Your task to perform on an android device: all mails in gmail Image 0: 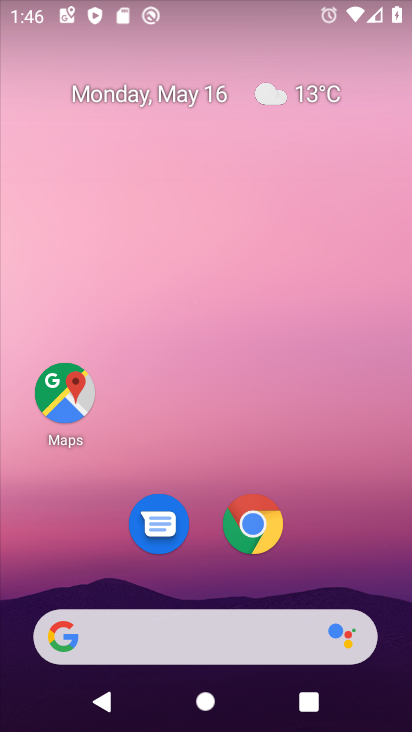
Step 0: drag from (335, 512) to (328, 92)
Your task to perform on an android device: all mails in gmail Image 1: 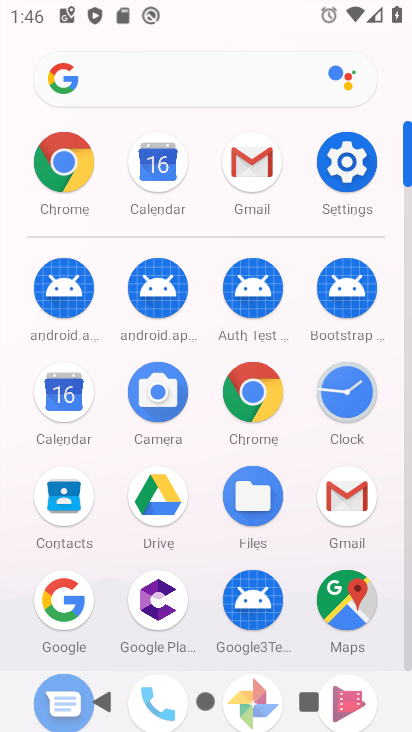
Step 1: click (264, 155)
Your task to perform on an android device: all mails in gmail Image 2: 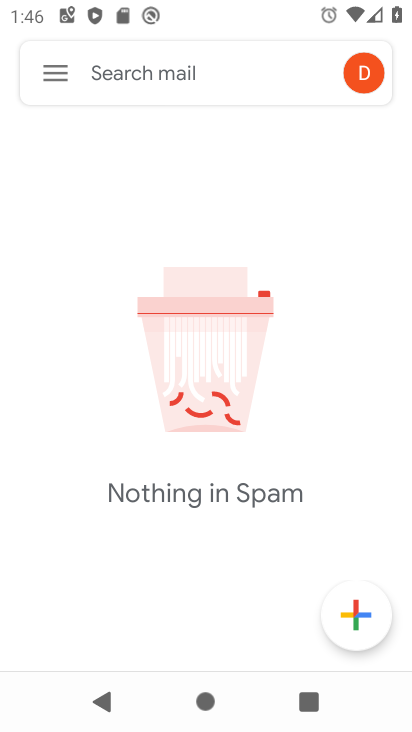
Step 2: click (56, 64)
Your task to perform on an android device: all mails in gmail Image 3: 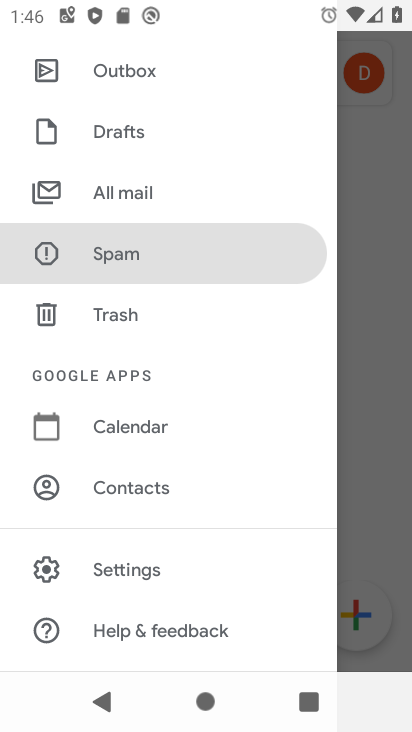
Step 3: click (146, 177)
Your task to perform on an android device: all mails in gmail Image 4: 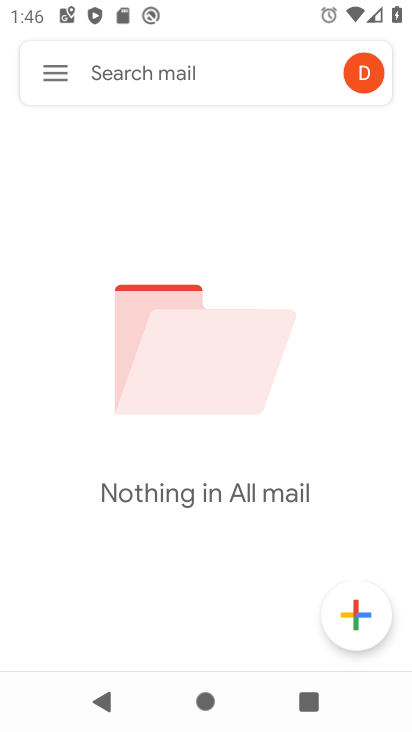
Step 4: task complete